Your task to perform on an android device: Open my contact list Image 0: 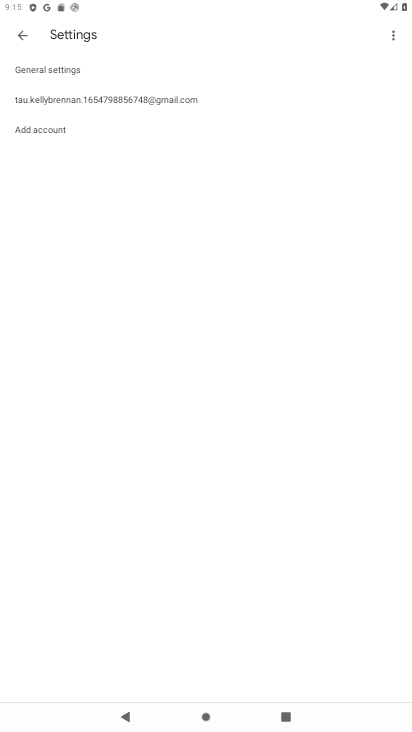
Step 0: press home button
Your task to perform on an android device: Open my contact list Image 1: 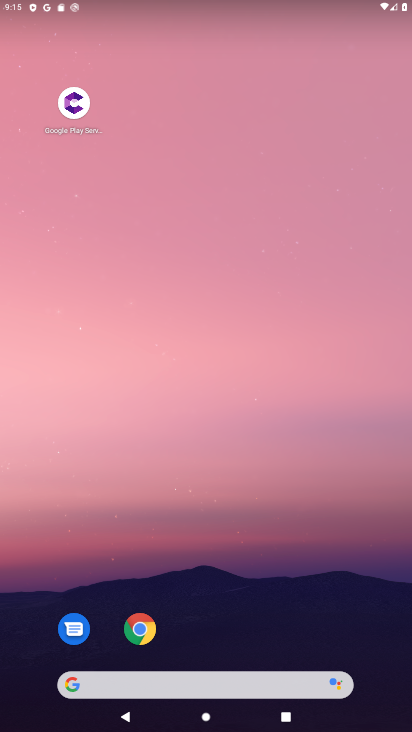
Step 1: drag from (260, 647) to (251, 124)
Your task to perform on an android device: Open my contact list Image 2: 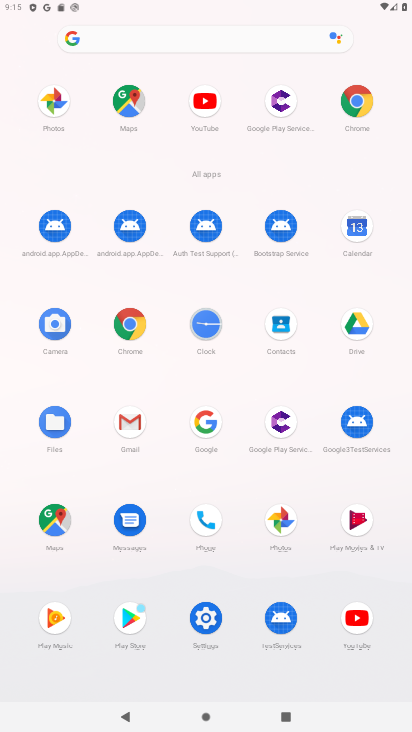
Step 2: click (262, 323)
Your task to perform on an android device: Open my contact list Image 3: 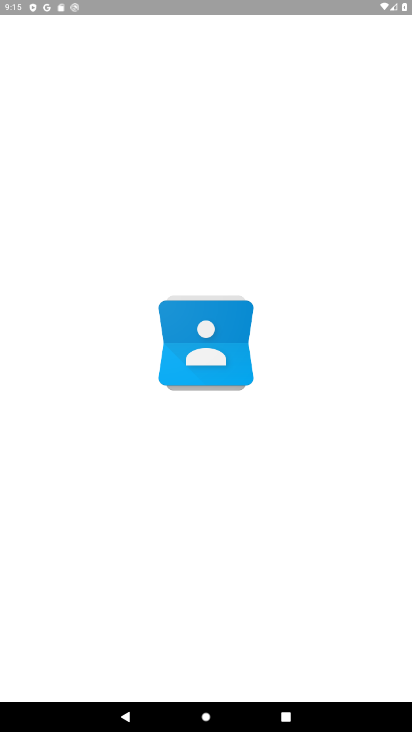
Step 3: task complete